Your task to perform on an android device: Open privacy settings Image 0: 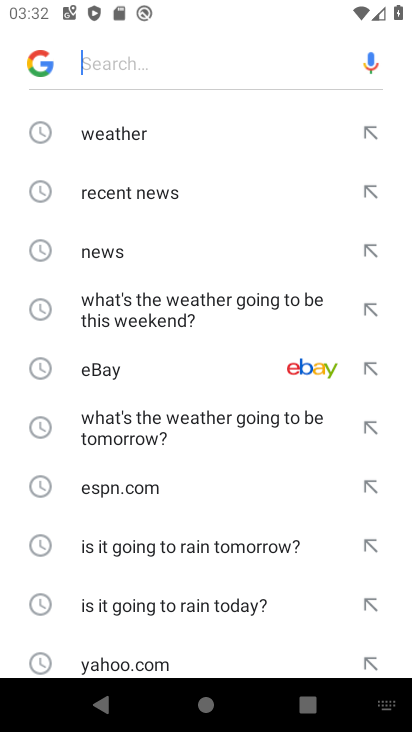
Step 0: press home button
Your task to perform on an android device: Open privacy settings Image 1: 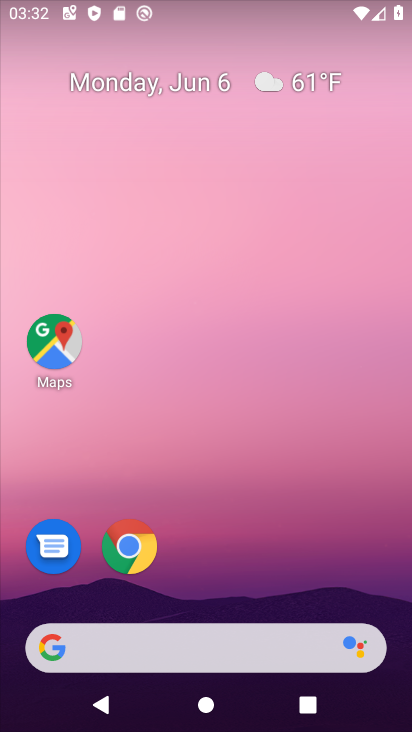
Step 1: drag from (197, 604) to (248, 170)
Your task to perform on an android device: Open privacy settings Image 2: 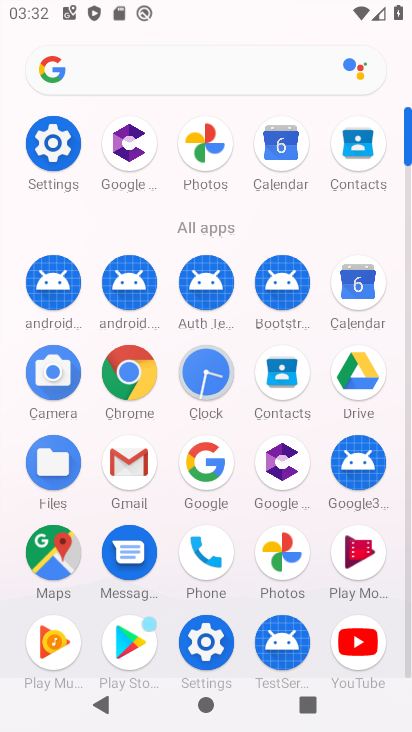
Step 2: click (53, 140)
Your task to perform on an android device: Open privacy settings Image 3: 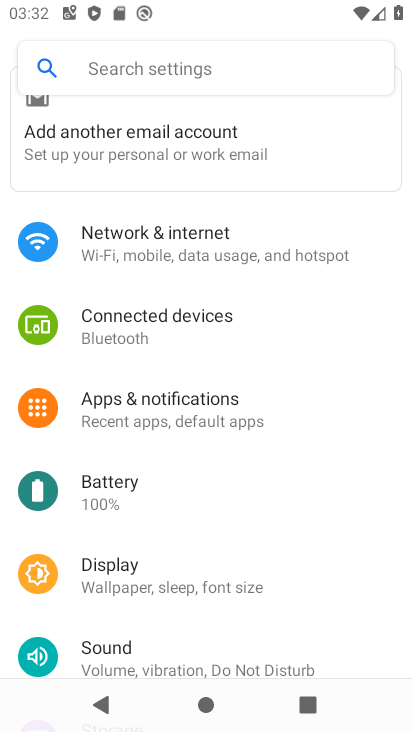
Step 3: drag from (194, 600) to (192, 218)
Your task to perform on an android device: Open privacy settings Image 4: 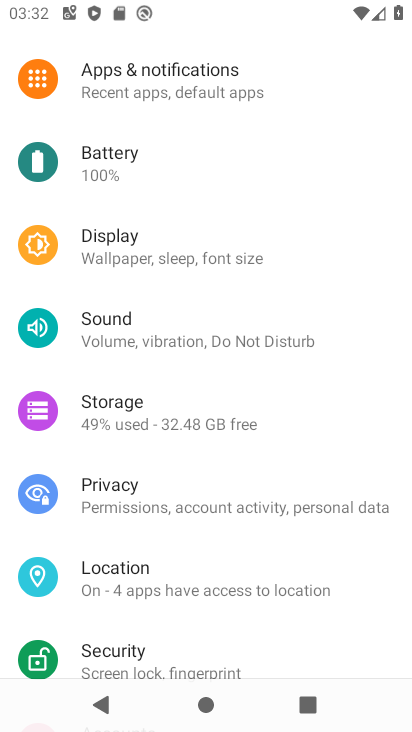
Step 4: click (90, 490)
Your task to perform on an android device: Open privacy settings Image 5: 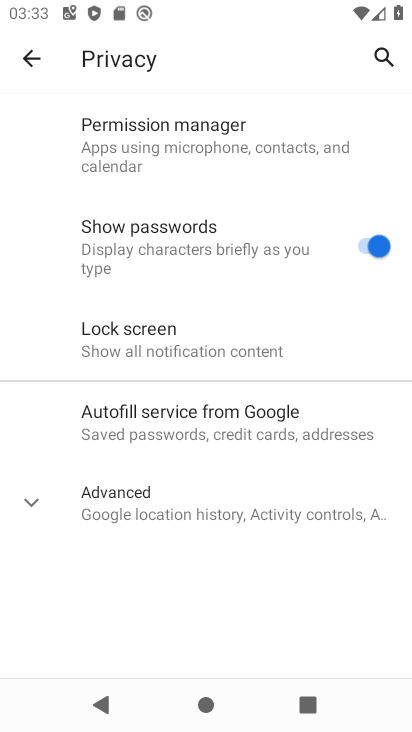
Step 5: task complete